Your task to perform on an android device: turn off location history Image 0: 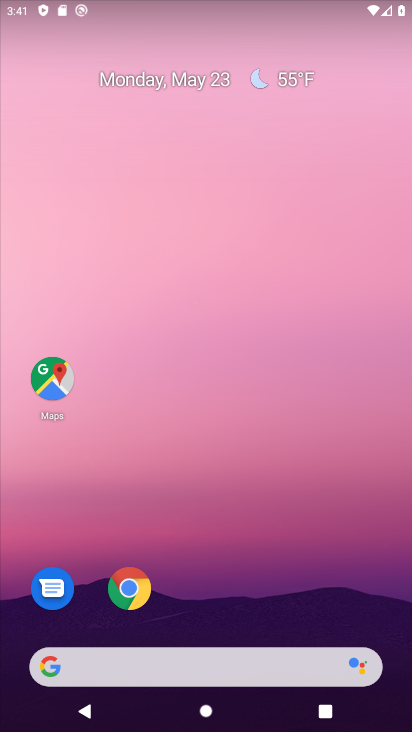
Step 0: drag from (242, 597) to (186, 132)
Your task to perform on an android device: turn off location history Image 1: 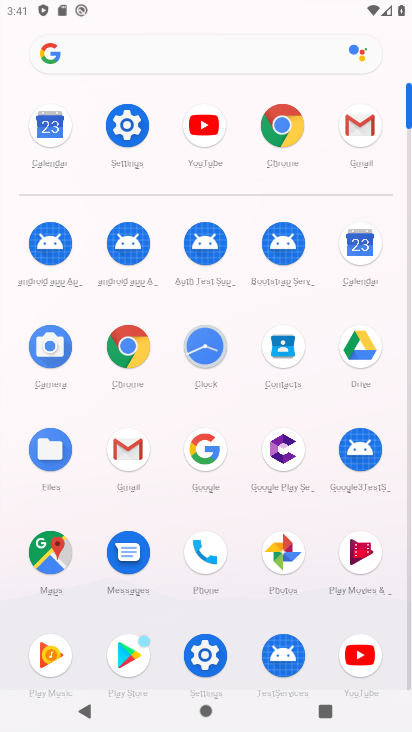
Step 1: click (128, 117)
Your task to perform on an android device: turn off location history Image 2: 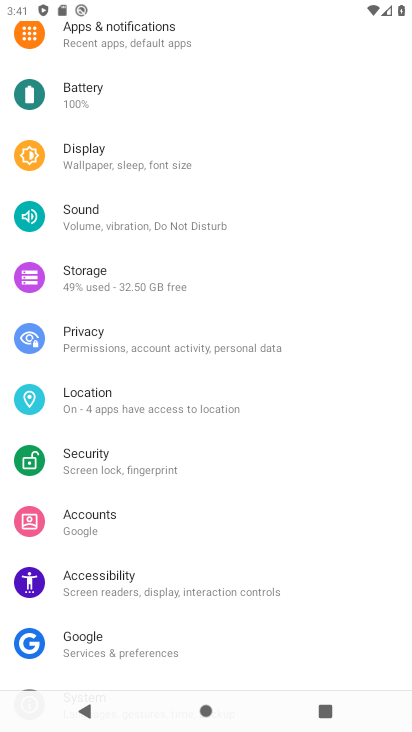
Step 2: click (96, 392)
Your task to perform on an android device: turn off location history Image 3: 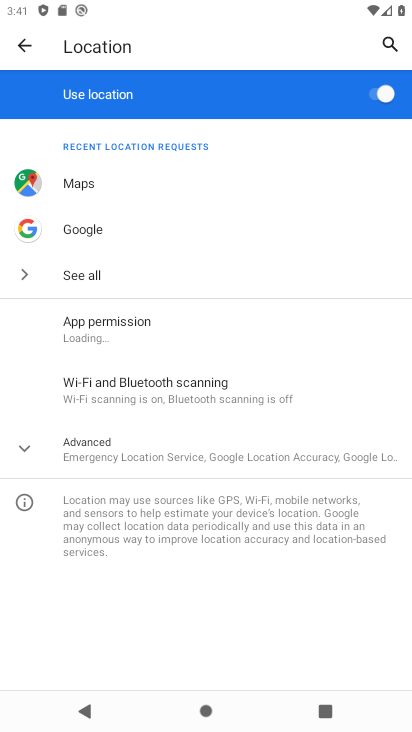
Step 3: click (91, 439)
Your task to perform on an android device: turn off location history Image 4: 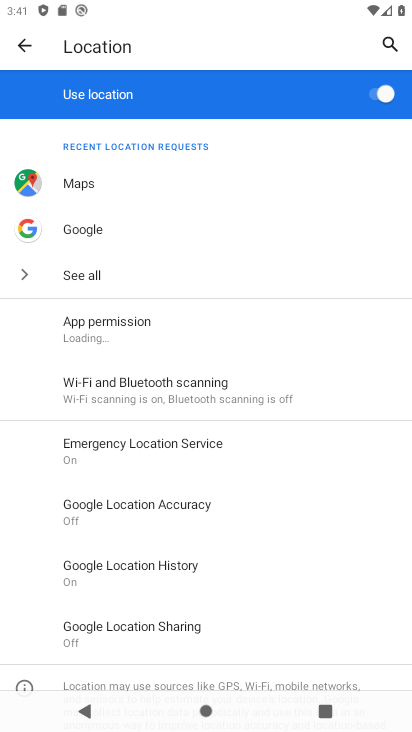
Step 4: click (171, 556)
Your task to perform on an android device: turn off location history Image 5: 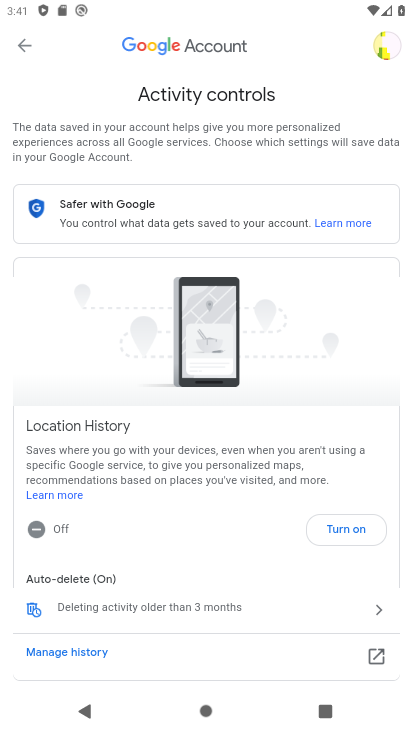
Step 5: task complete